Your task to perform on an android device: Do I have any events today? Image 0: 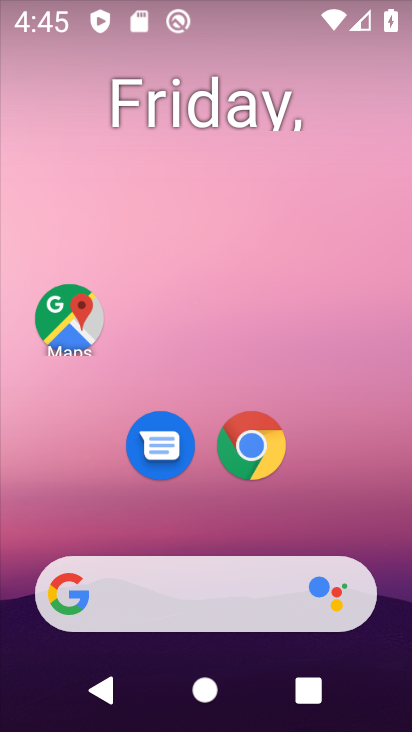
Step 0: drag from (330, 502) to (306, 183)
Your task to perform on an android device: Do I have any events today? Image 1: 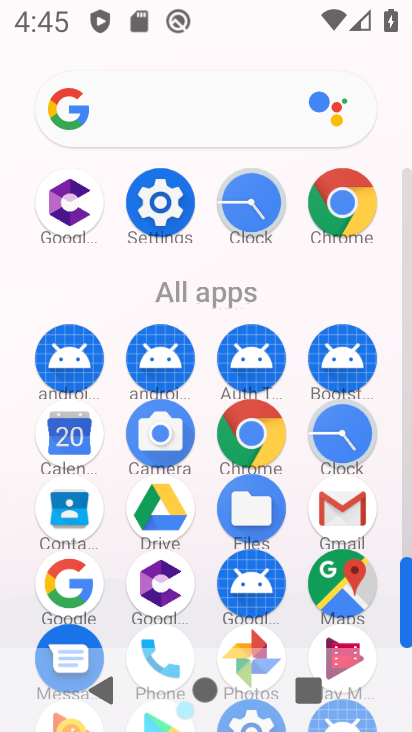
Step 1: click (156, 220)
Your task to perform on an android device: Do I have any events today? Image 2: 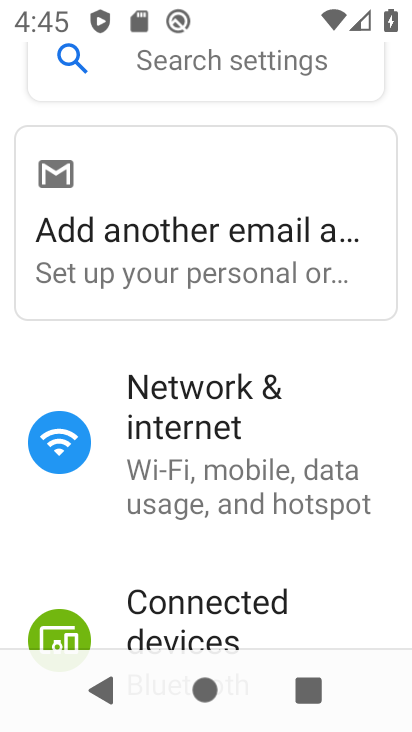
Step 2: press home button
Your task to perform on an android device: Do I have any events today? Image 3: 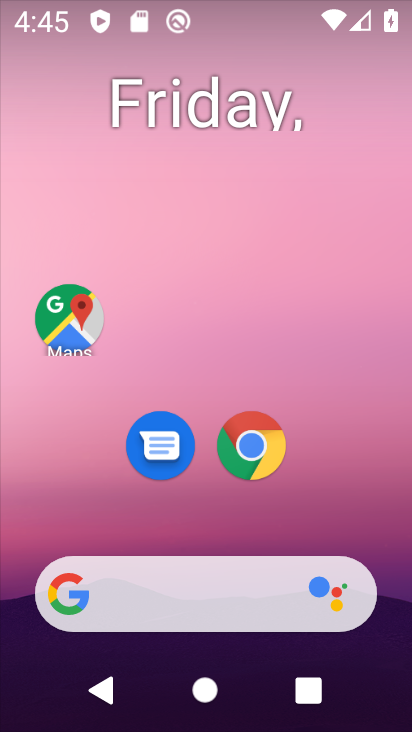
Step 3: drag from (345, 490) to (327, 121)
Your task to perform on an android device: Do I have any events today? Image 4: 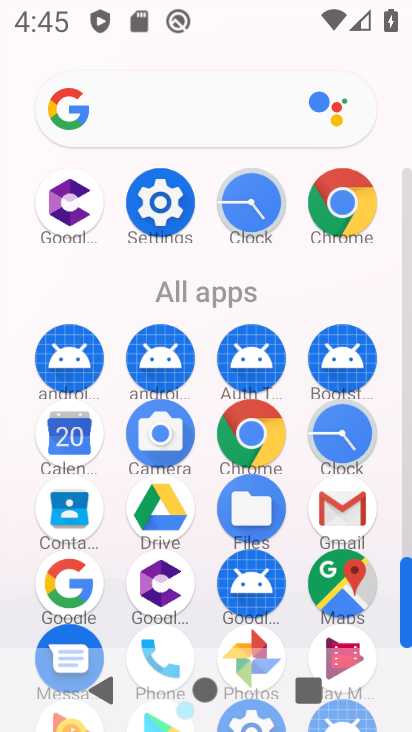
Step 4: click (84, 496)
Your task to perform on an android device: Do I have any events today? Image 5: 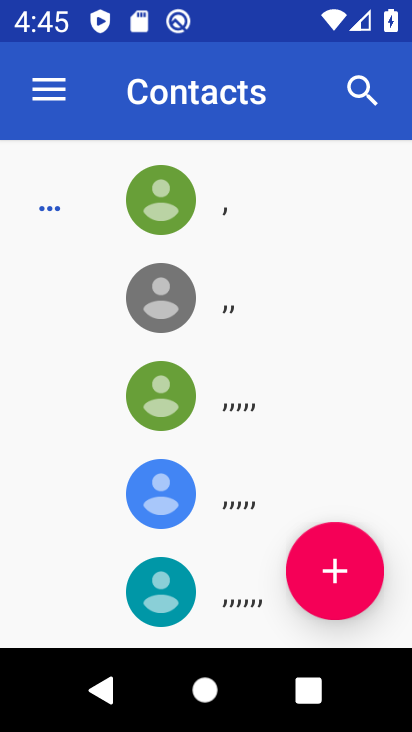
Step 5: task complete